Your task to perform on an android device: open a new tab in the chrome app Image 0: 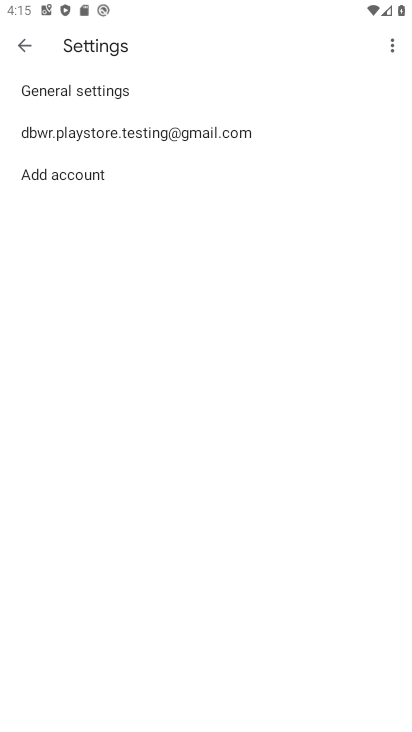
Step 0: press home button
Your task to perform on an android device: open a new tab in the chrome app Image 1: 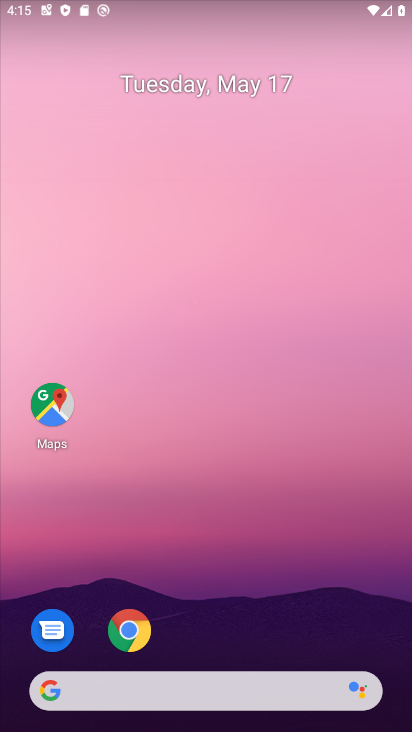
Step 1: click (128, 629)
Your task to perform on an android device: open a new tab in the chrome app Image 2: 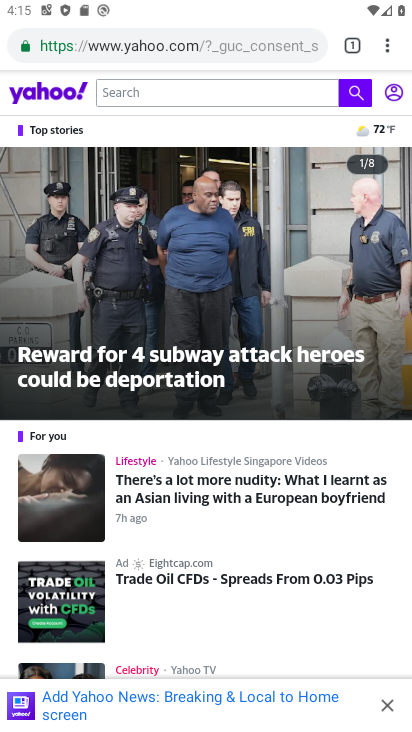
Step 2: click (390, 50)
Your task to perform on an android device: open a new tab in the chrome app Image 3: 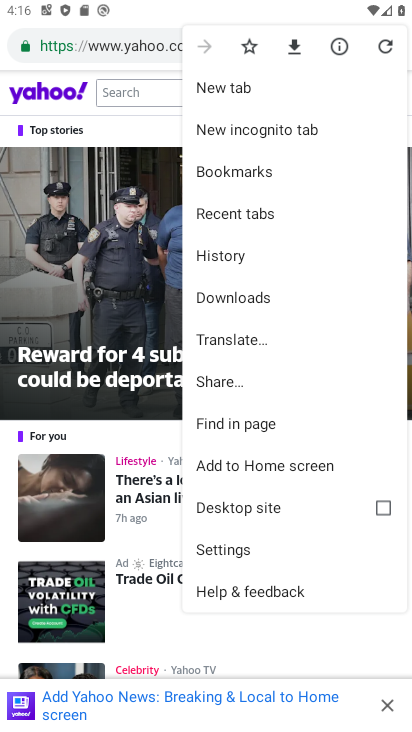
Step 3: click (234, 87)
Your task to perform on an android device: open a new tab in the chrome app Image 4: 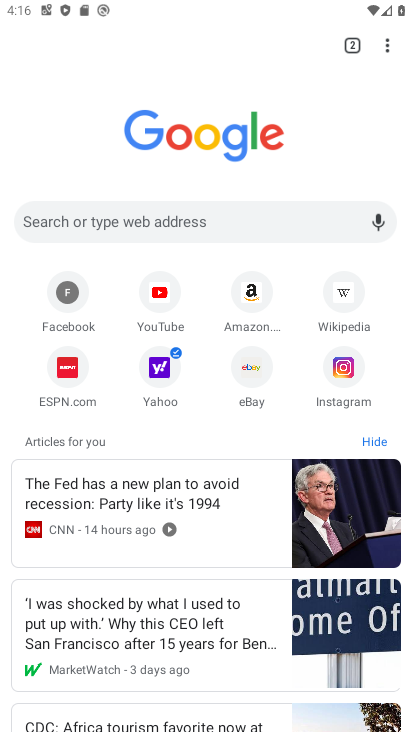
Step 4: task complete